Your task to perform on an android device: See recent photos Image 0: 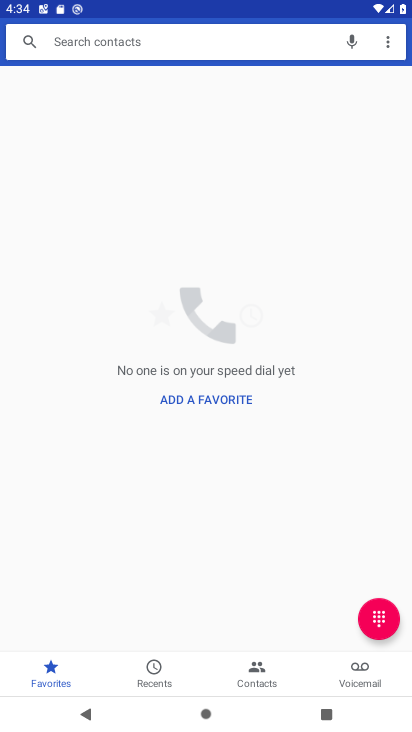
Step 0: press home button
Your task to perform on an android device: See recent photos Image 1: 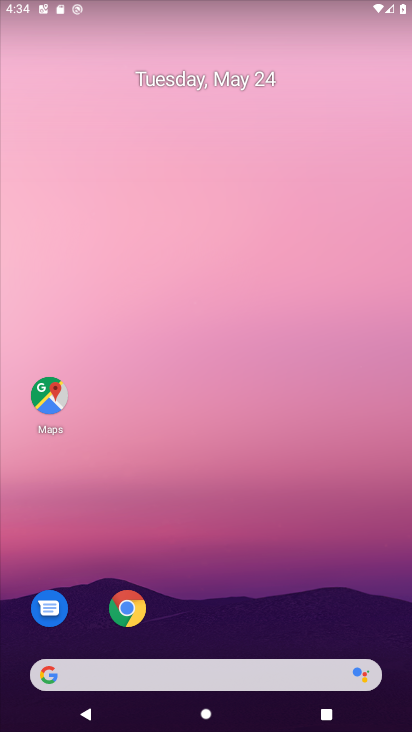
Step 1: drag from (270, 661) to (248, 334)
Your task to perform on an android device: See recent photos Image 2: 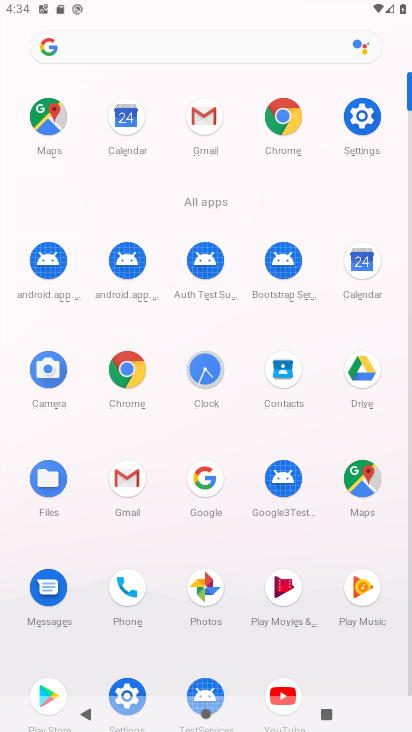
Step 2: click (212, 589)
Your task to perform on an android device: See recent photos Image 3: 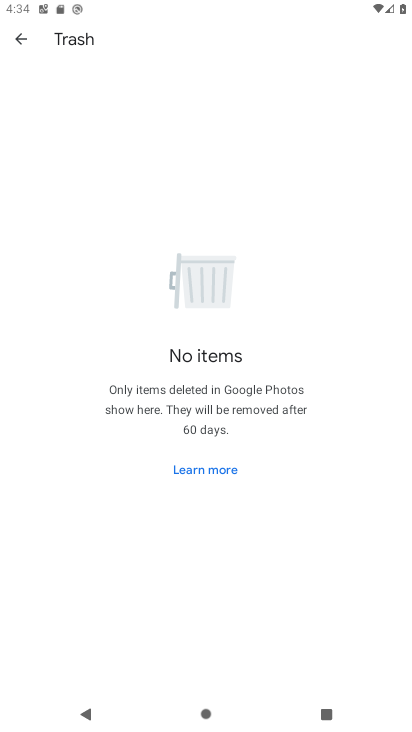
Step 3: click (25, 36)
Your task to perform on an android device: See recent photos Image 4: 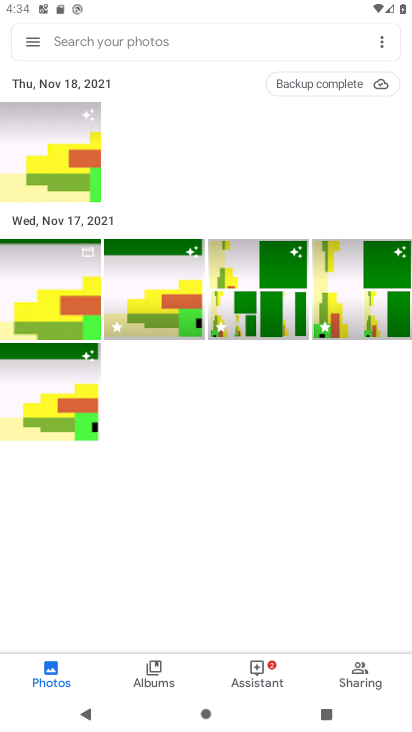
Step 4: click (33, 169)
Your task to perform on an android device: See recent photos Image 5: 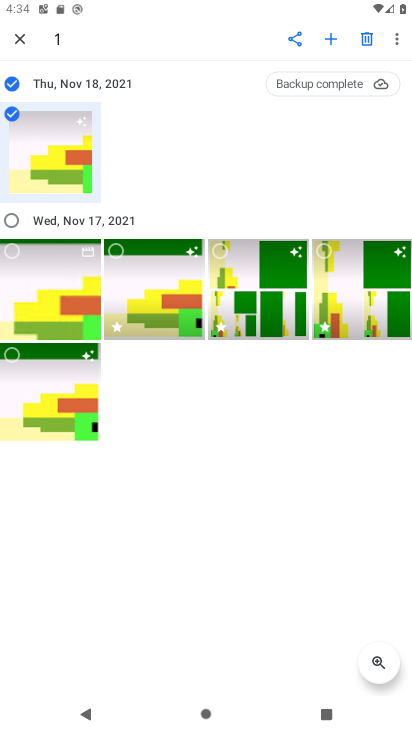
Step 5: click (89, 149)
Your task to perform on an android device: See recent photos Image 6: 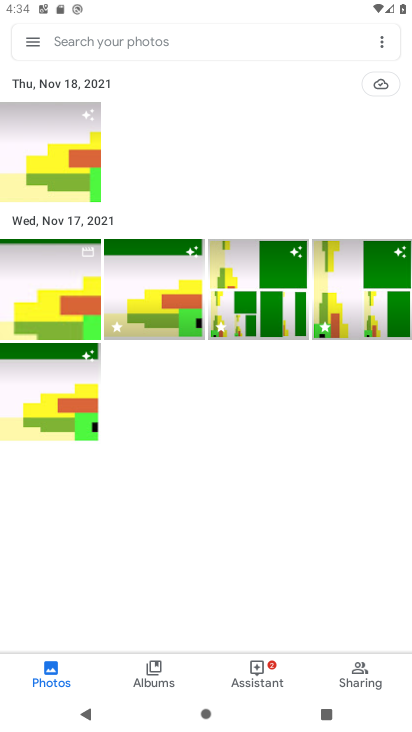
Step 6: task complete